Your task to perform on an android device: Open sound settings Image 0: 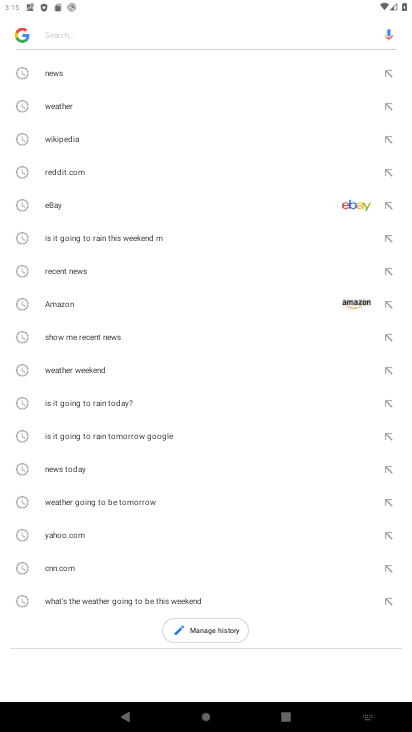
Step 0: press home button
Your task to perform on an android device: Open sound settings Image 1: 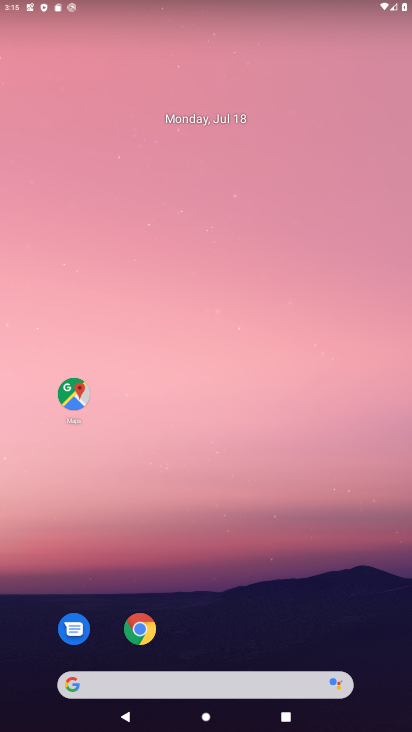
Step 1: drag from (241, 385) to (241, 182)
Your task to perform on an android device: Open sound settings Image 2: 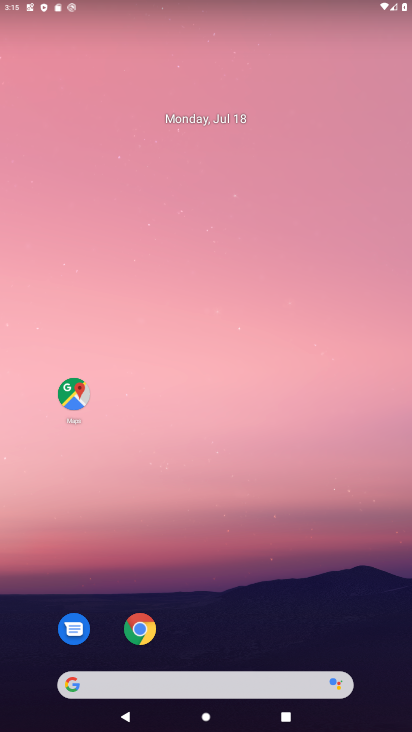
Step 2: drag from (190, 633) to (227, 171)
Your task to perform on an android device: Open sound settings Image 3: 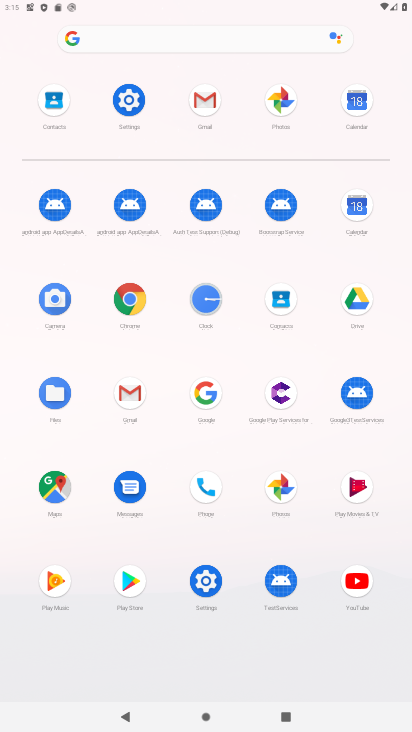
Step 3: click (123, 100)
Your task to perform on an android device: Open sound settings Image 4: 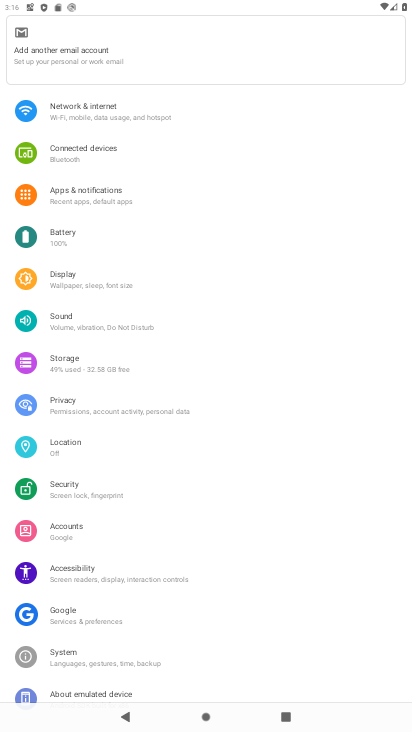
Step 4: click (86, 326)
Your task to perform on an android device: Open sound settings Image 5: 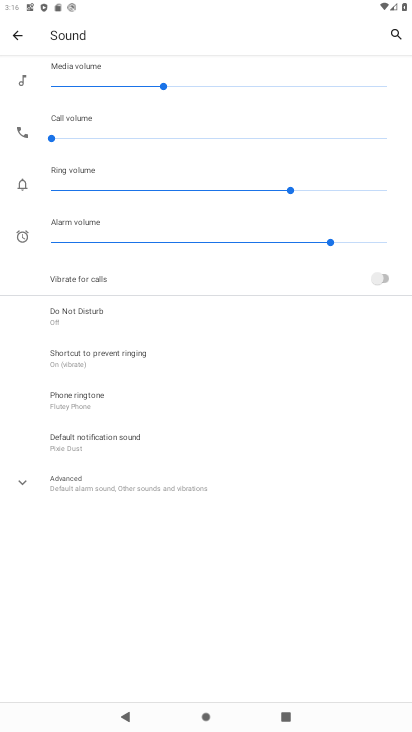
Step 5: task complete